Your task to perform on an android device: What's the weather today? Image 0: 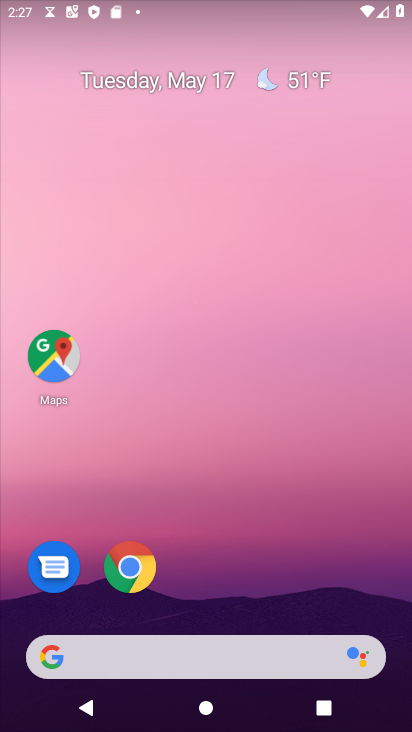
Step 0: click (287, 87)
Your task to perform on an android device: What's the weather today? Image 1: 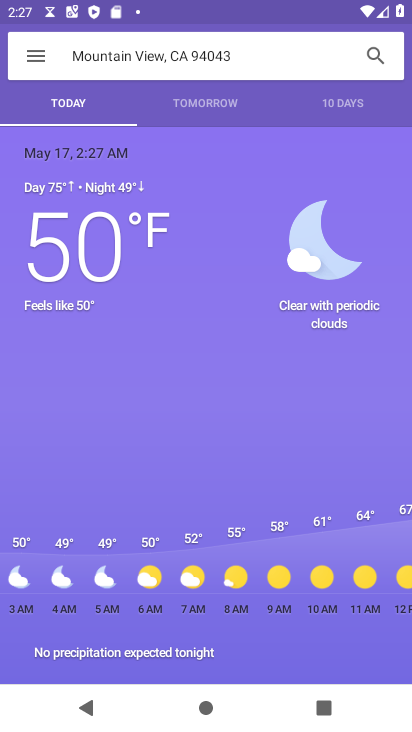
Step 1: task complete